Your task to perform on an android device: Open eBay Image 0: 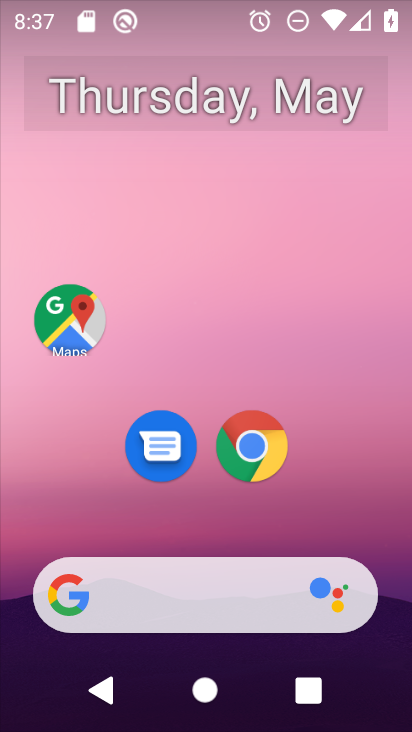
Step 0: press home button
Your task to perform on an android device: Open eBay Image 1: 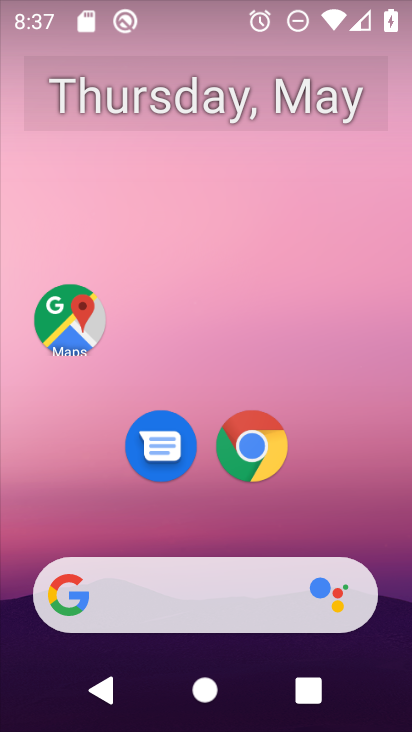
Step 1: drag from (384, 506) to (378, 66)
Your task to perform on an android device: Open eBay Image 2: 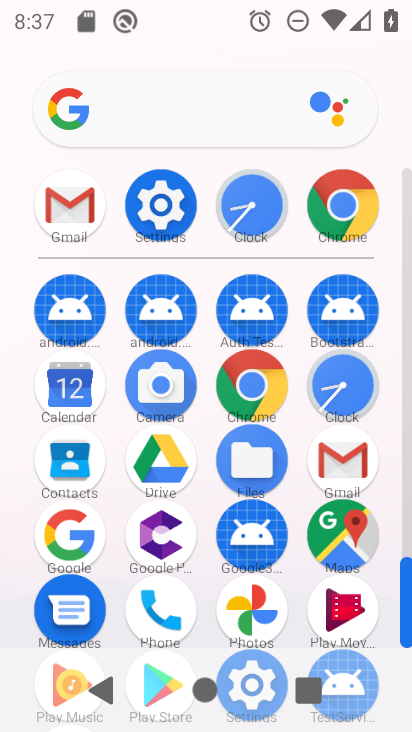
Step 2: click (257, 399)
Your task to perform on an android device: Open eBay Image 3: 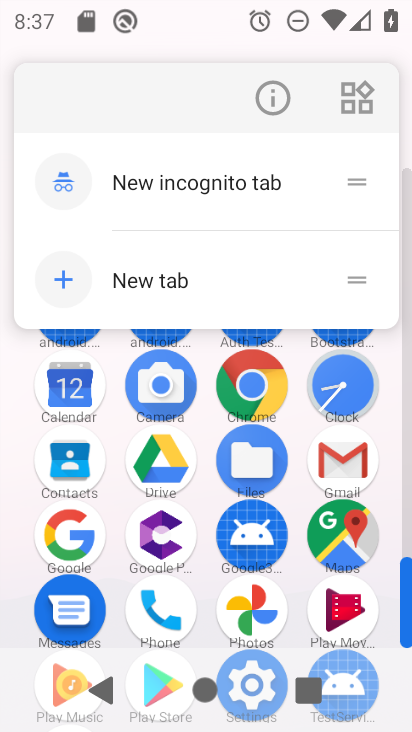
Step 3: click (263, 403)
Your task to perform on an android device: Open eBay Image 4: 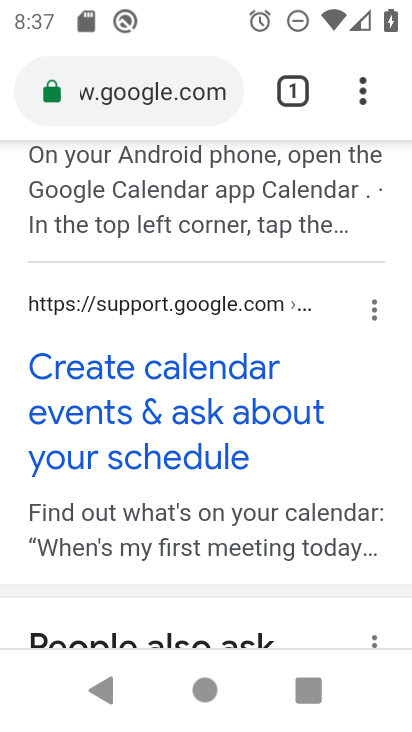
Step 4: click (176, 85)
Your task to perform on an android device: Open eBay Image 5: 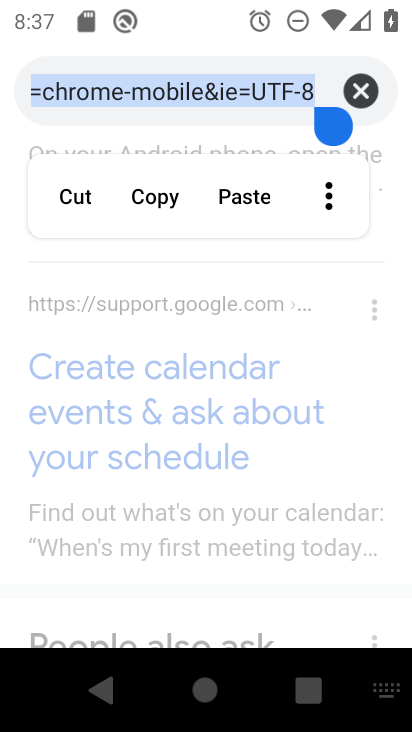
Step 5: click (352, 90)
Your task to perform on an android device: Open eBay Image 6: 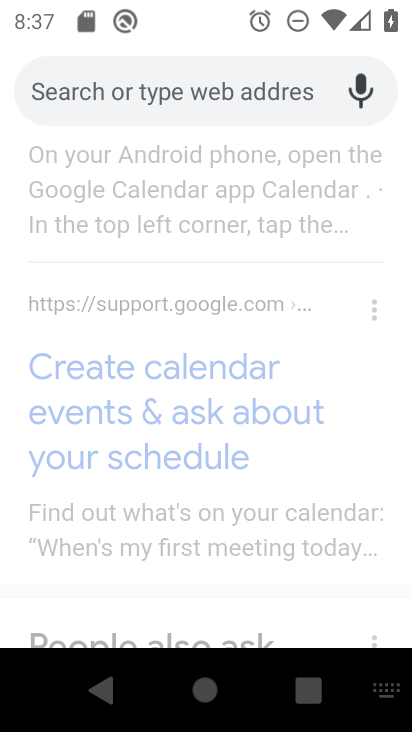
Step 6: type "ebay"
Your task to perform on an android device: Open eBay Image 7: 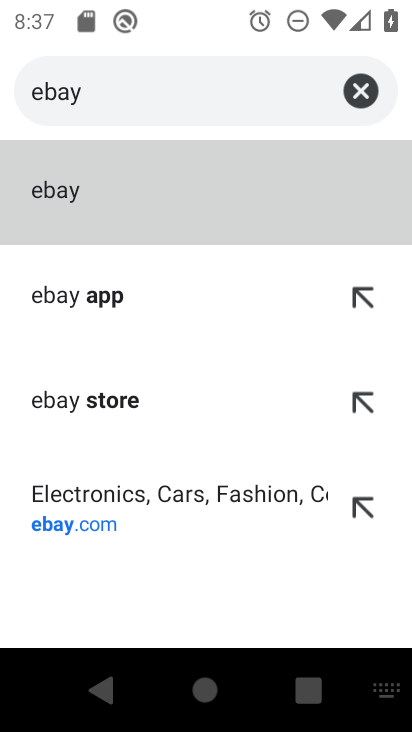
Step 7: click (69, 188)
Your task to perform on an android device: Open eBay Image 8: 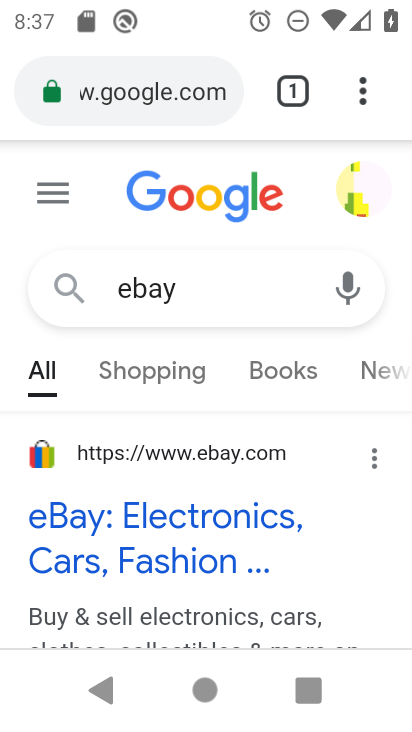
Step 8: click (195, 540)
Your task to perform on an android device: Open eBay Image 9: 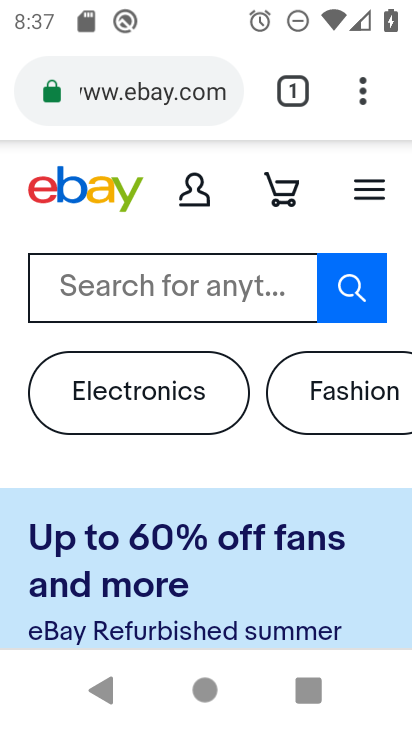
Step 9: drag from (242, 594) to (233, 281)
Your task to perform on an android device: Open eBay Image 10: 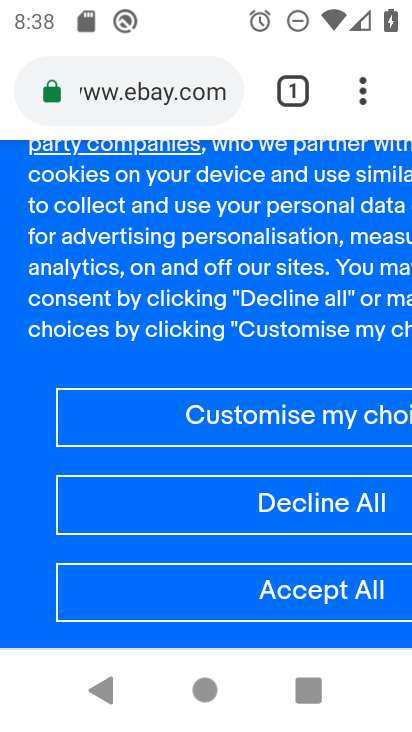
Step 10: click (127, 590)
Your task to perform on an android device: Open eBay Image 11: 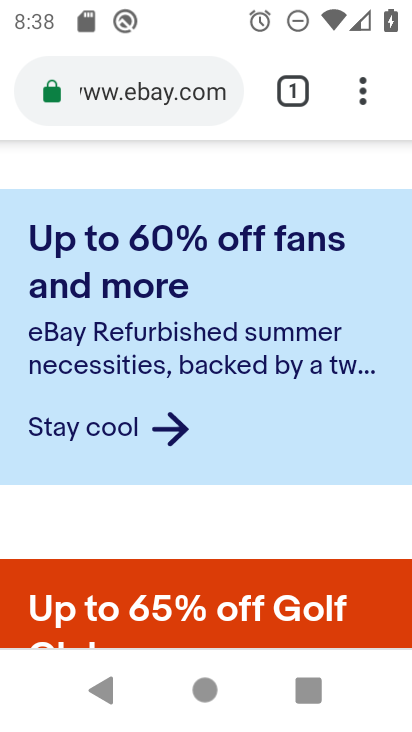
Step 11: task complete